Your task to perform on an android device: turn pop-ups off in chrome Image 0: 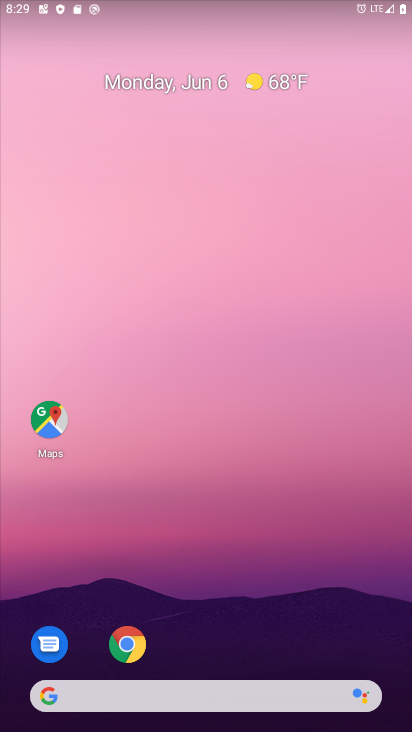
Step 0: drag from (269, 721) to (261, 198)
Your task to perform on an android device: turn pop-ups off in chrome Image 1: 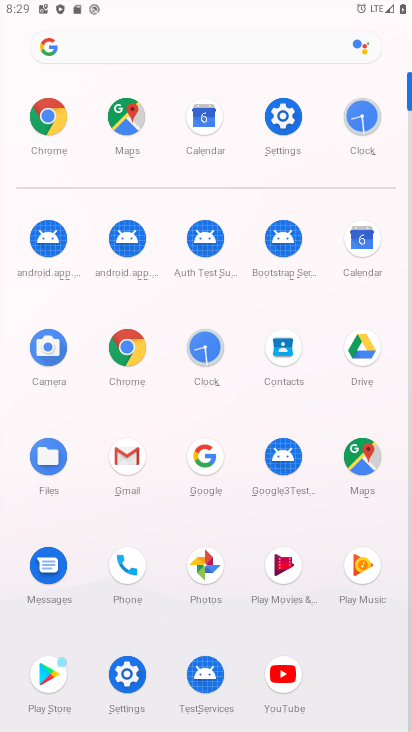
Step 1: click (47, 128)
Your task to perform on an android device: turn pop-ups off in chrome Image 2: 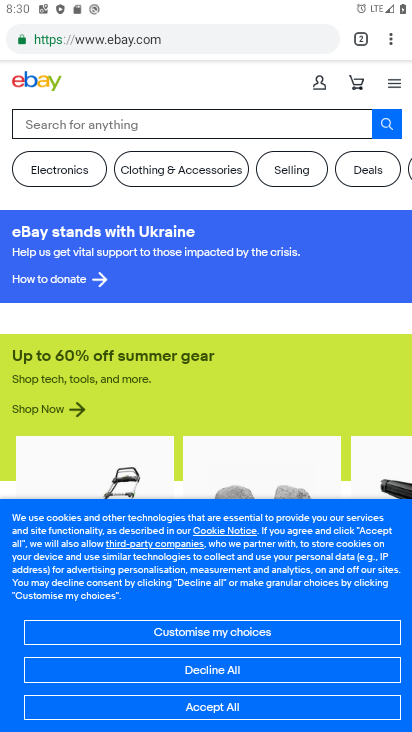
Step 2: click (393, 38)
Your task to perform on an android device: turn pop-ups off in chrome Image 3: 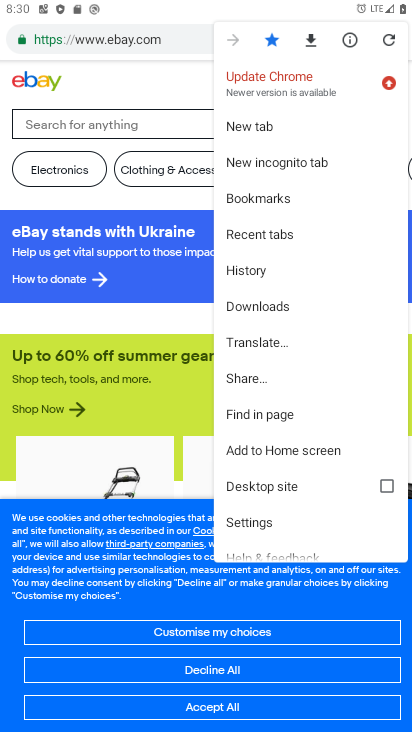
Step 3: click (251, 520)
Your task to perform on an android device: turn pop-ups off in chrome Image 4: 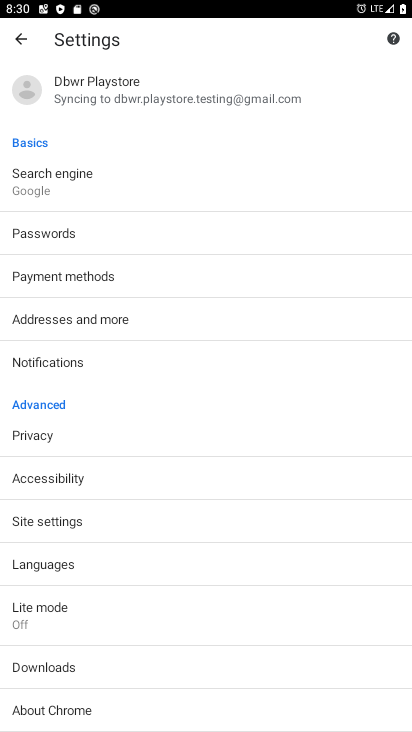
Step 4: click (67, 522)
Your task to perform on an android device: turn pop-ups off in chrome Image 5: 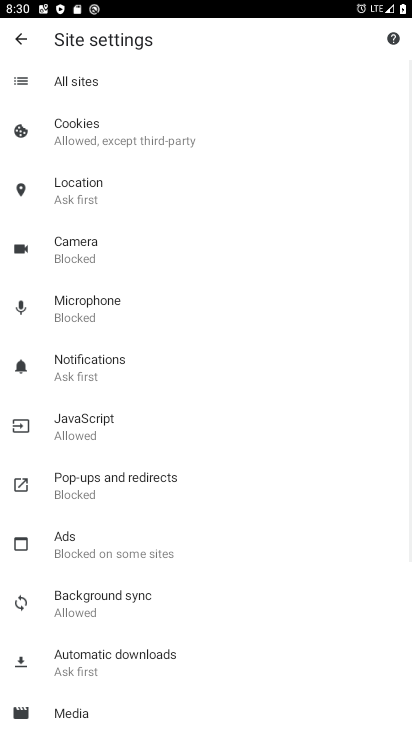
Step 5: click (97, 476)
Your task to perform on an android device: turn pop-ups off in chrome Image 6: 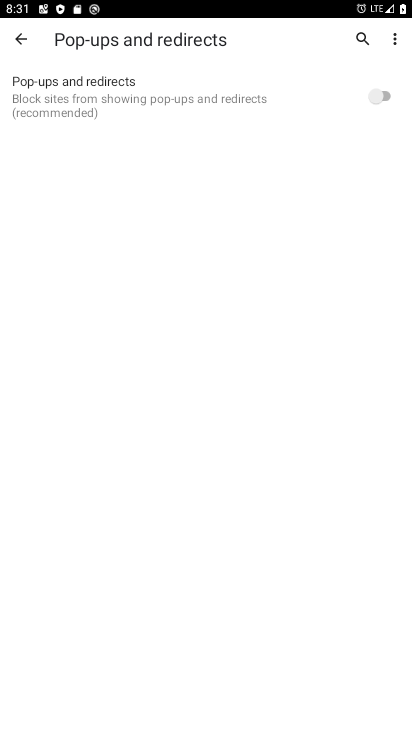
Step 6: task complete